Your task to perform on an android device: change alarm snooze length Image 0: 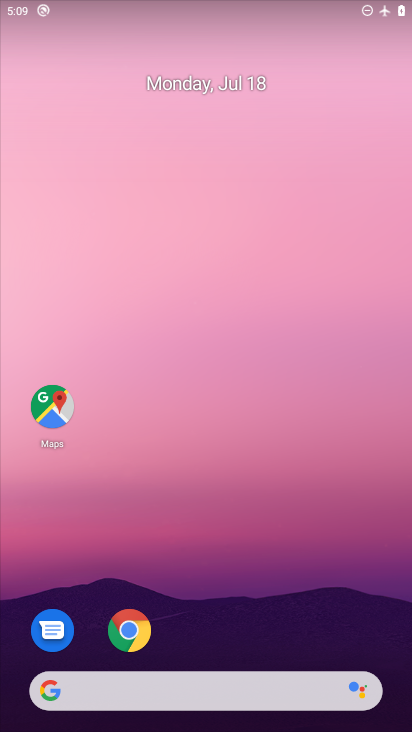
Step 0: press home button
Your task to perform on an android device: change alarm snooze length Image 1: 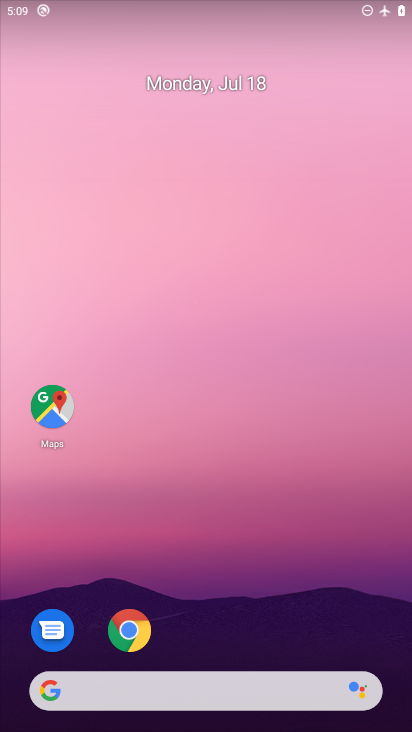
Step 1: drag from (231, 636) to (311, 290)
Your task to perform on an android device: change alarm snooze length Image 2: 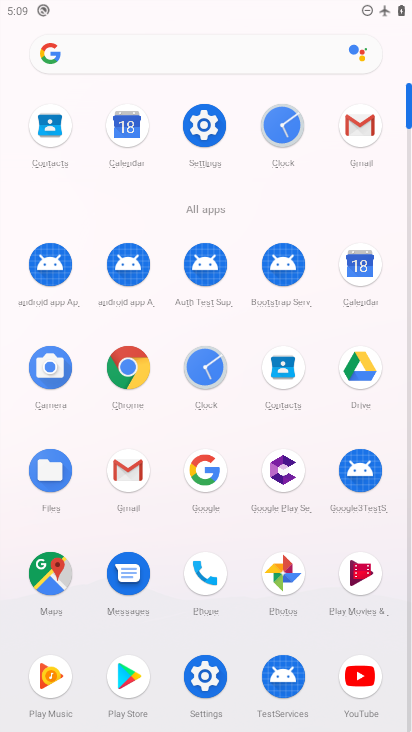
Step 2: click (200, 359)
Your task to perform on an android device: change alarm snooze length Image 3: 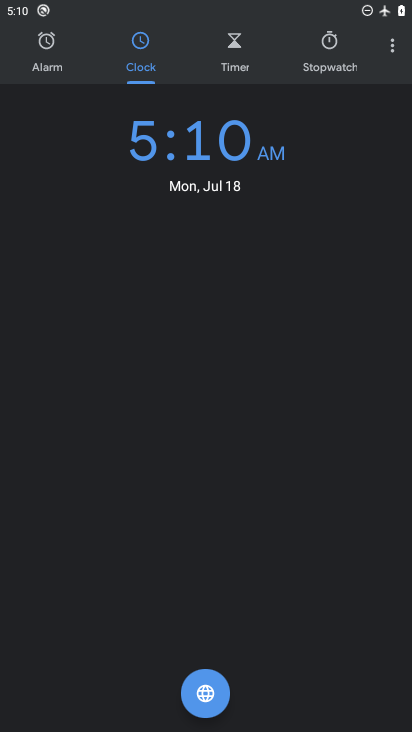
Step 3: click (393, 47)
Your task to perform on an android device: change alarm snooze length Image 4: 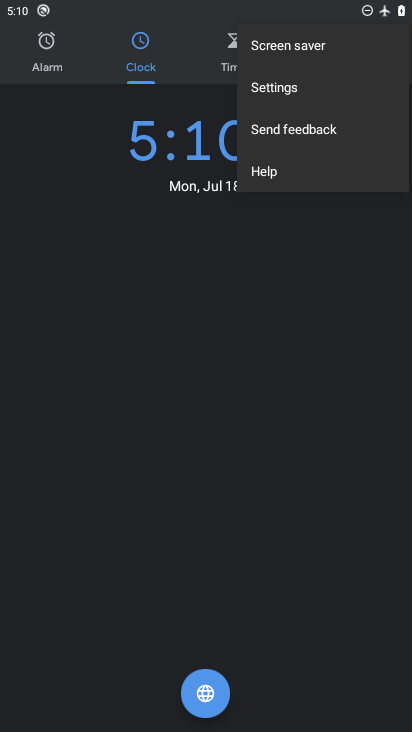
Step 4: click (303, 85)
Your task to perform on an android device: change alarm snooze length Image 5: 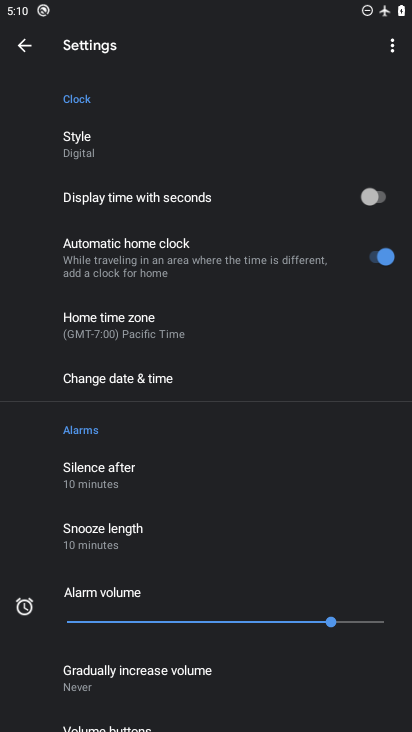
Step 5: click (156, 536)
Your task to perform on an android device: change alarm snooze length Image 6: 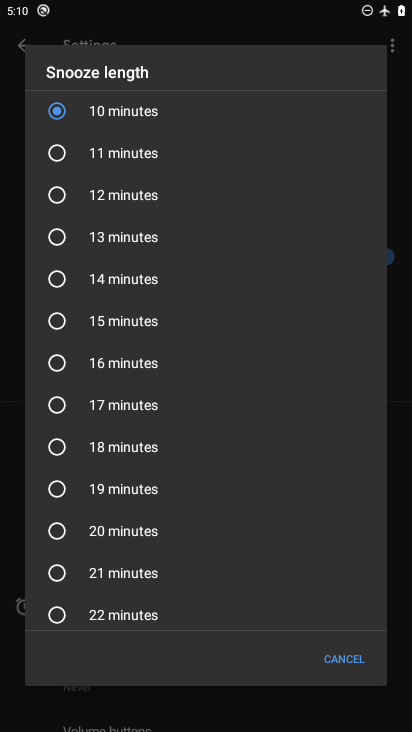
Step 6: drag from (135, 167) to (135, 542)
Your task to perform on an android device: change alarm snooze length Image 7: 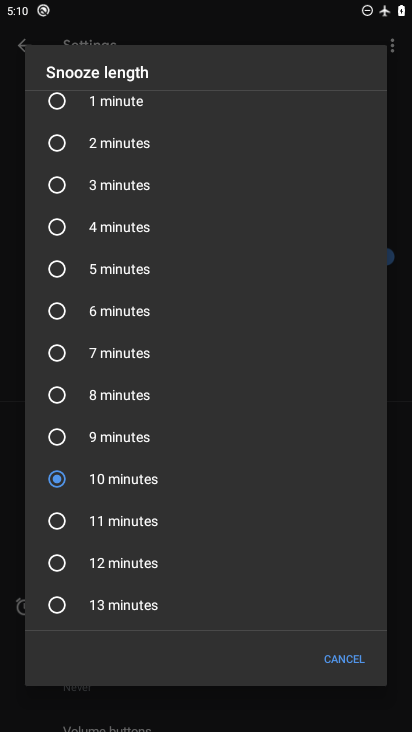
Step 7: click (58, 271)
Your task to perform on an android device: change alarm snooze length Image 8: 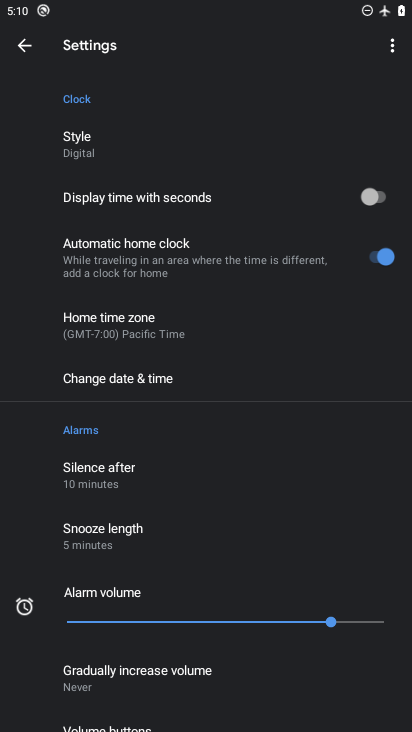
Step 8: task complete